Your task to perform on an android device: Open Chrome and go to settings Image 0: 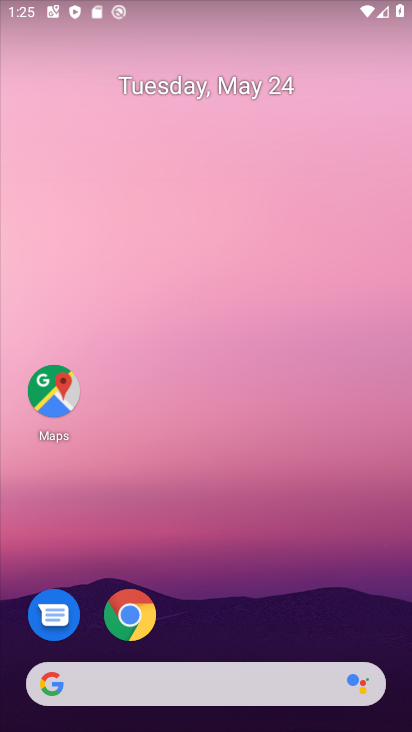
Step 0: click (117, 625)
Your task to perform on an android device: Open Chrome and go to settings Image 1: 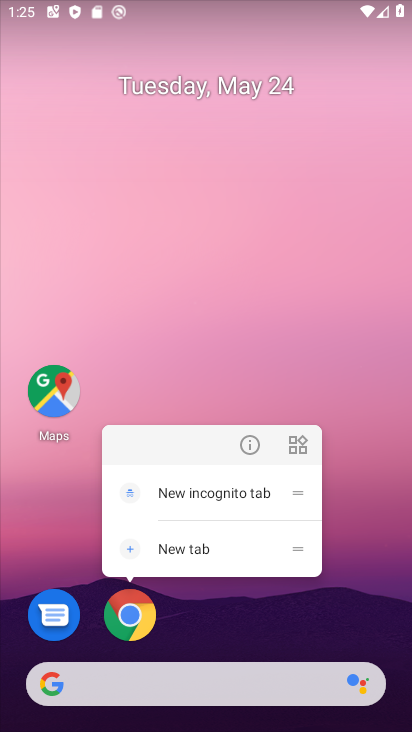
Step 1: click (130, 614)
Your task to perform on an android device: Open Chrome and go to settings Image 2: 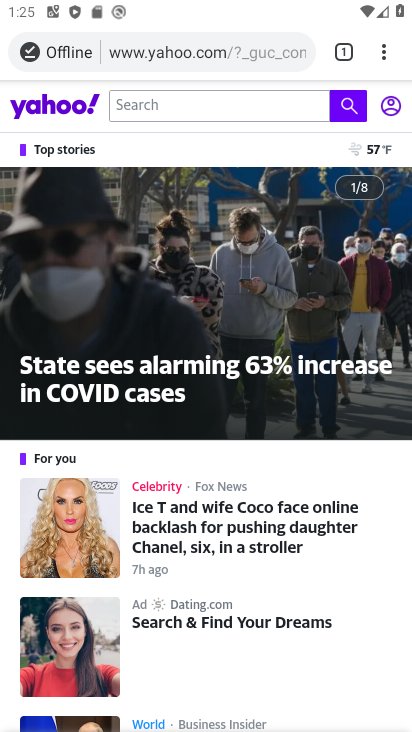
Step 2: task complete